Your task to perform on an android device: Go to eBay Image 0: 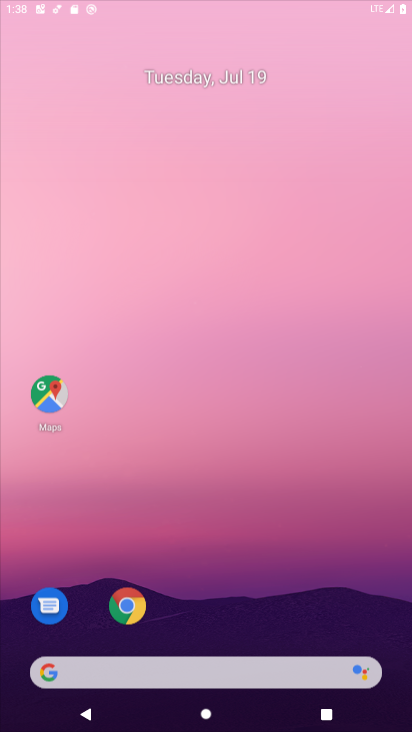
Step 0: drag from (209, 458) to (300, 189)
Your task to perform on an android device: Go to eBay Image 1: 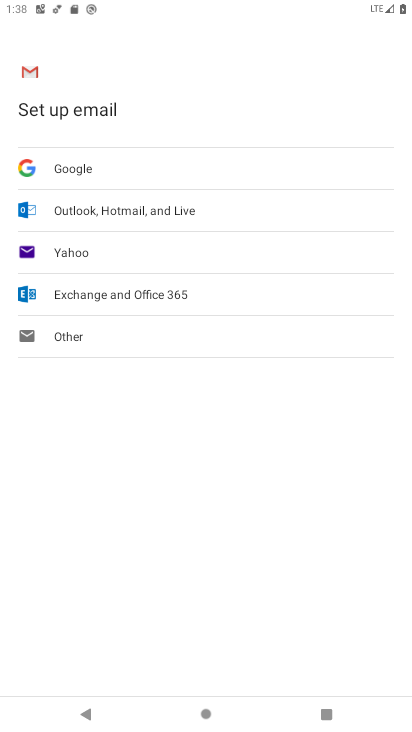
Step 1: press home button
Your task to perform on an android device: Go to eBay Image 2: 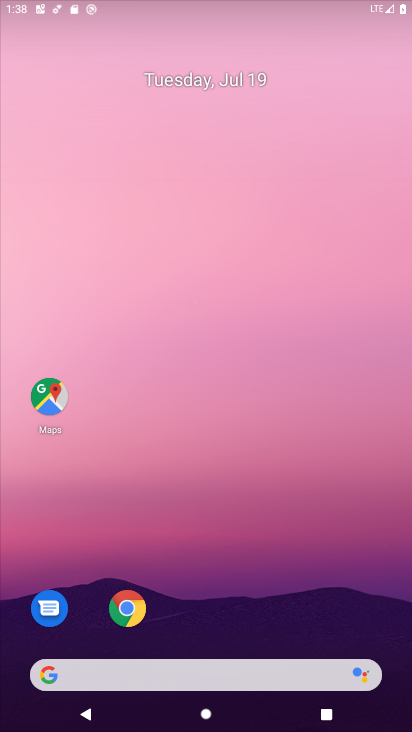
Step 2: drag from (244, 584) to (276, 160)
Your task to perform on an android device: Go to eBay Image 3: 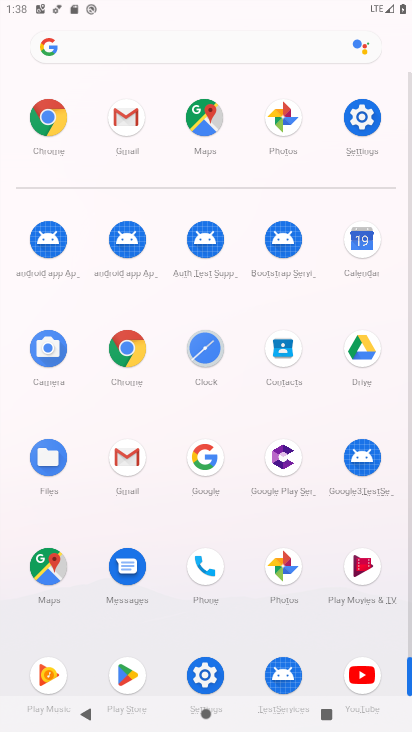
Step 3: click (148, 351)
Your task to perform on an android device: Go to eBay Image 4: 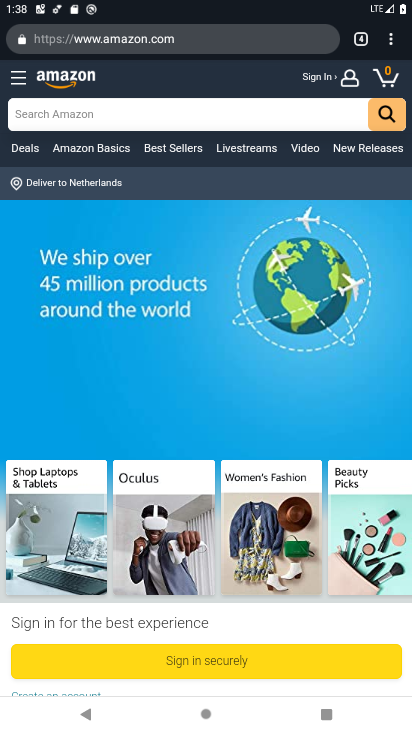
Step 4: click (364, 41)
Your task to perform on an android device: Go to eBay Image 5: 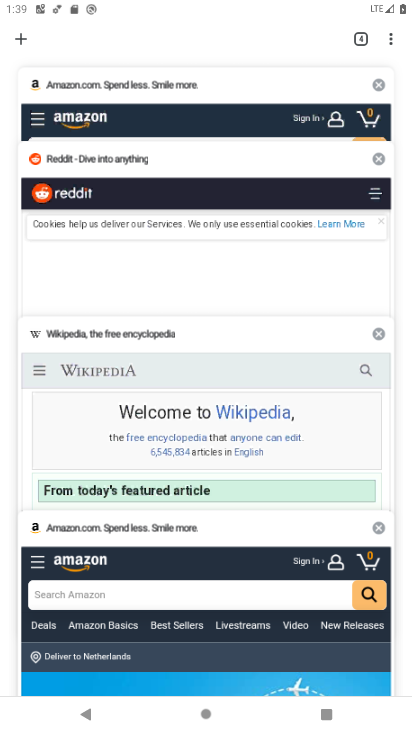
Step 5: click (13, 28)
Your task to perform on an android device: Go to eBay Image 6: 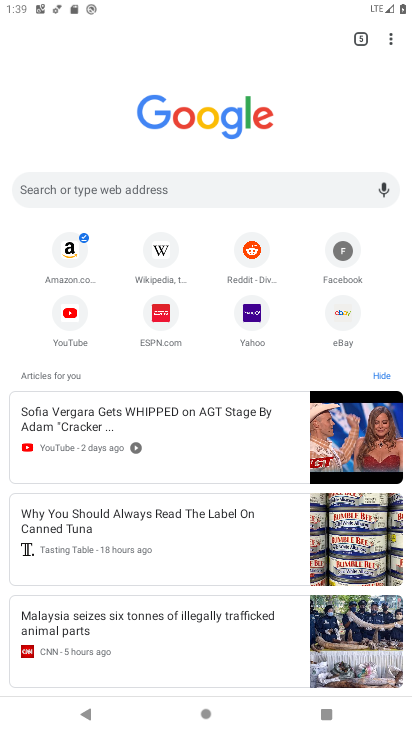
Step 6: click (174, 181)
Your task to perform on an android device: Go to eBay Image 7: 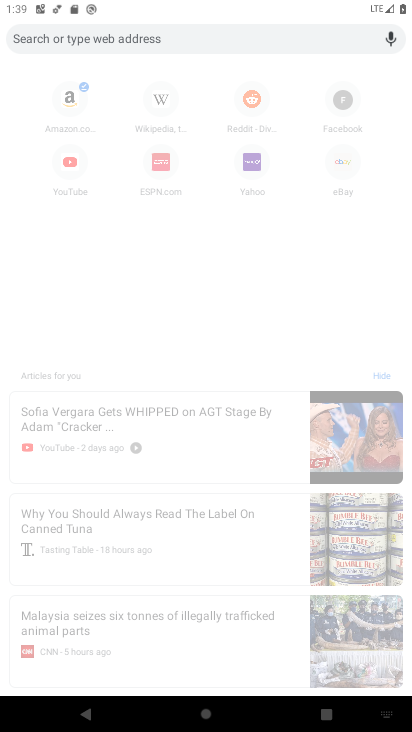
Step 7: type "eBay"
Your task to perform on an android device: Go to eBay Image 8: 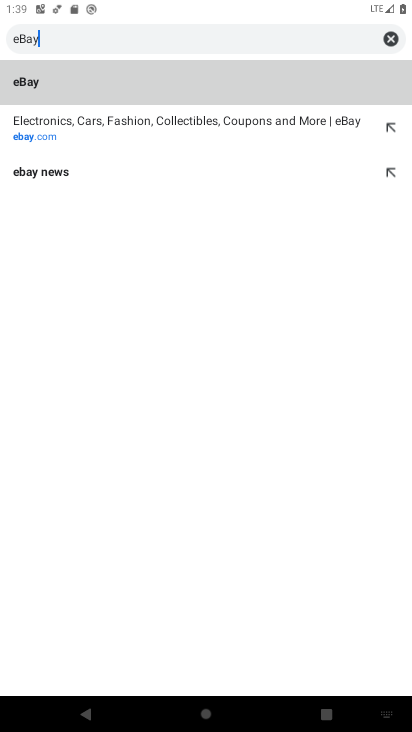
Step 8: type ""
Your task to perform on an android device: Go to eBay Image 9: 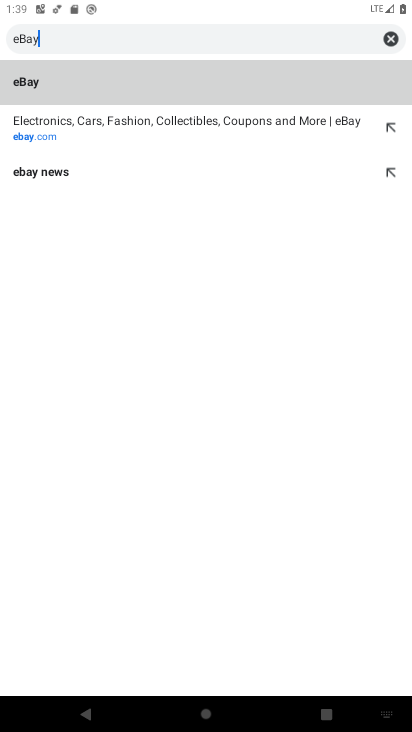
Step 9: click (109, 94)
Your task to perform on an android device: Go to eBay Image 10: 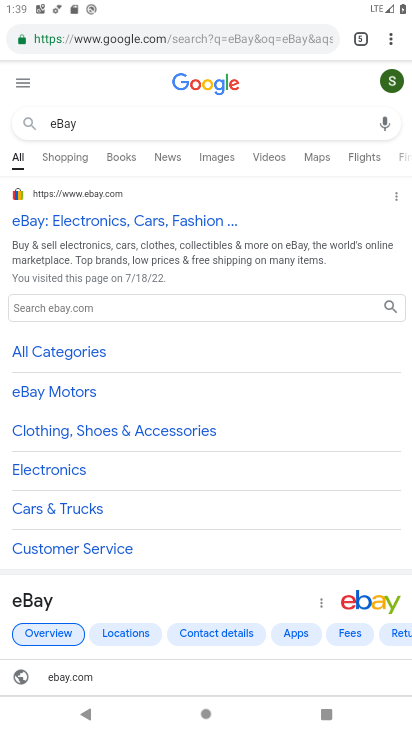
Step 10: task complete